Your task to perform on an android device: open app "PUBG MOBILE" (install if not already installed), go to login, and select forgot password Image 0: 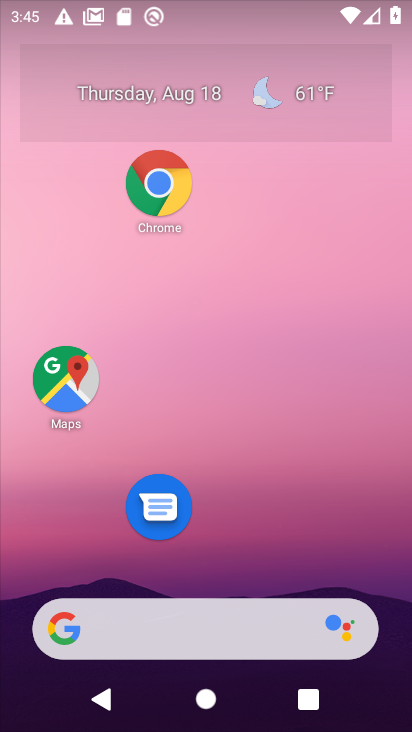
Step 0: drag from (228, 555) to (306, 86)
Your task to perform on an android device: open app "PUBG MOBILE" (install if not already installed), go to login, and select forgot password Image 1: 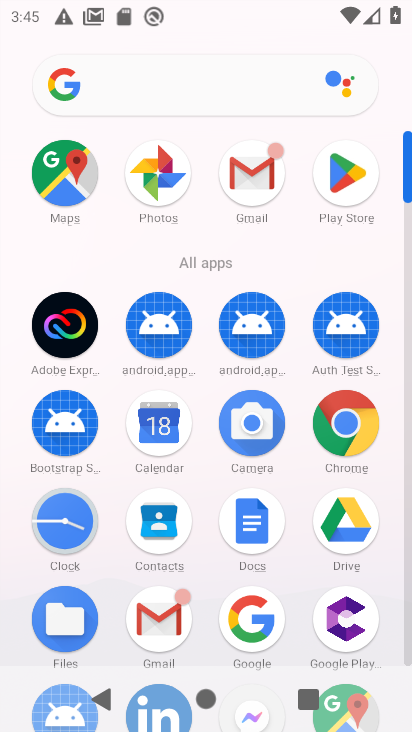
Step 1: click (365, 185)
Your task to perform on an android device: open app "PUBG MOBILE" (install if not already installed), go to login, and select forgot password Image 2: 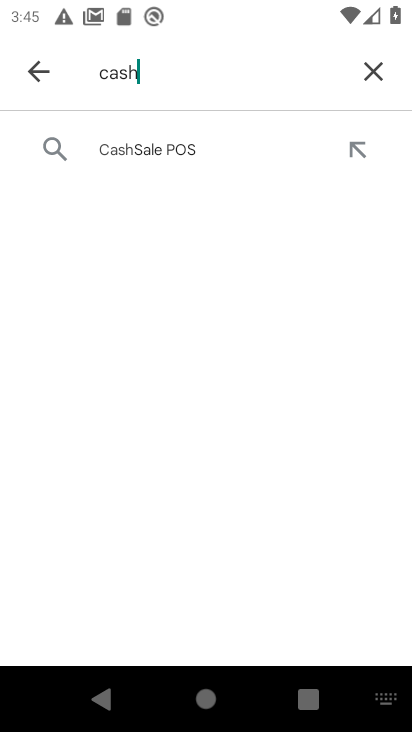
Step 2: click (372, 74)
Your task to perform on an android device: open app "PUBG MOBILE" (install if not already installed), go to login, and select forgot password Image 3: 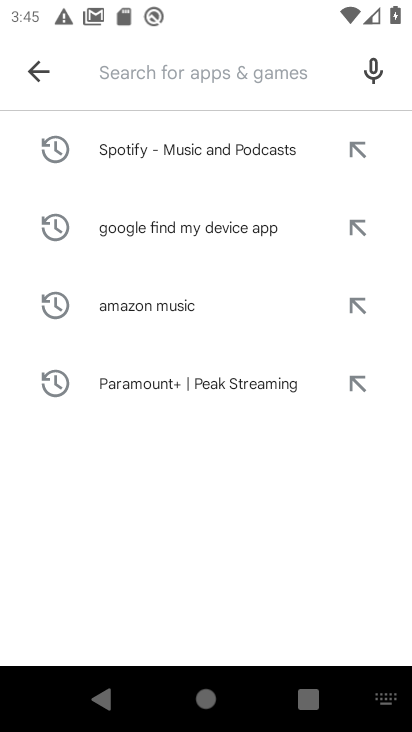
Step 3: click (157, 74)
Your task to perform on an android device: open app "PUBG MOBILE" (install if not already installed), go to login, and select forgot password Image 4: 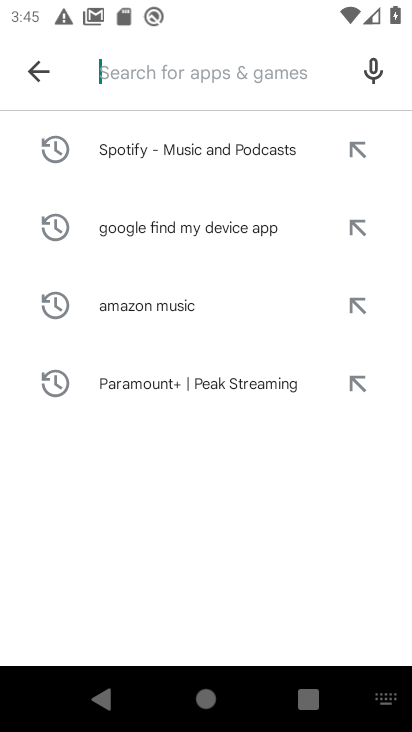
Step 4: type "pubg"
Your task to perform on an android device: open app "PUBG MOBILE" (install if not already installed), go to login, and select forgot password Image 5: 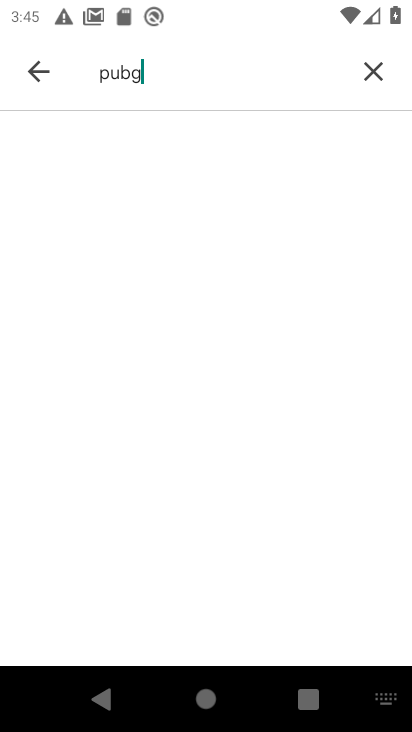
Step 5: task complete